Your task to perform on an android device: Open location settings Image 0: 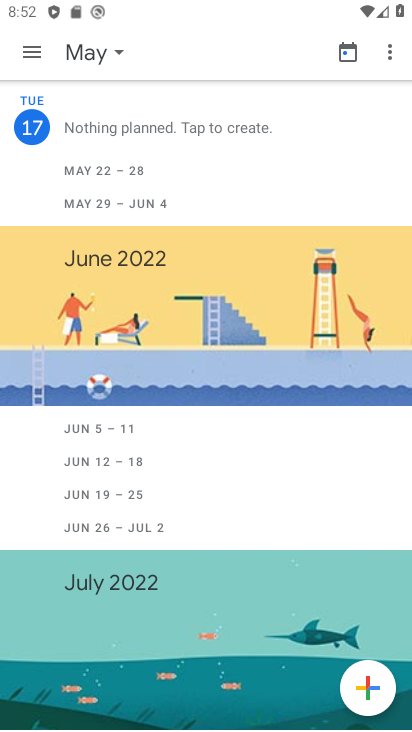
Step 0: press home button
Your task to perform on an android device: Open location settings Image 1: 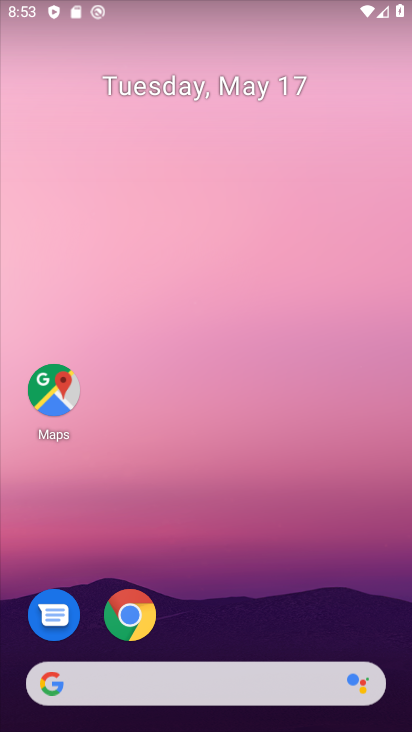
Step 1: drag from (209, 645) to (323, 96)
Your task to perform on an android device: Open location settings Image 2: 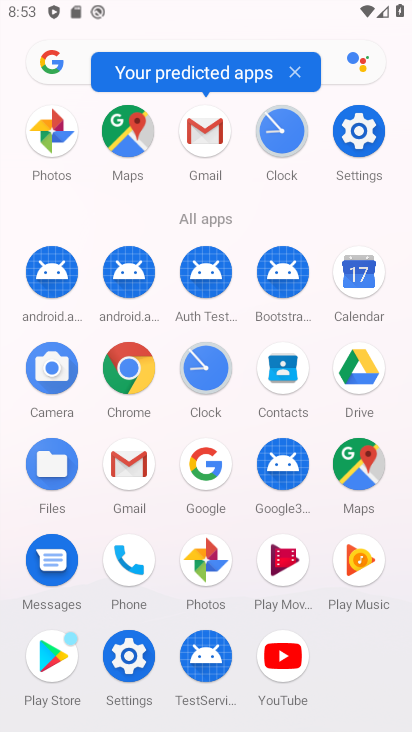
Step 2: click (132, 665)
Your task to perform on an android device: Open location settings Image 3: 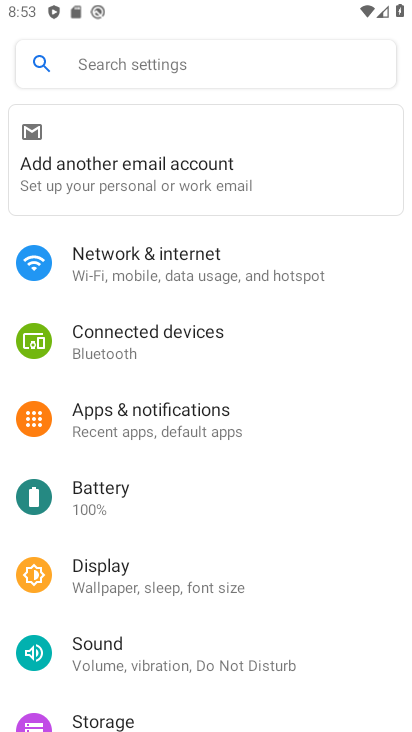
Step 3: drag from (184, 664) to (277, 267)
Your task to perform on an android device: Open location settings Image 4: 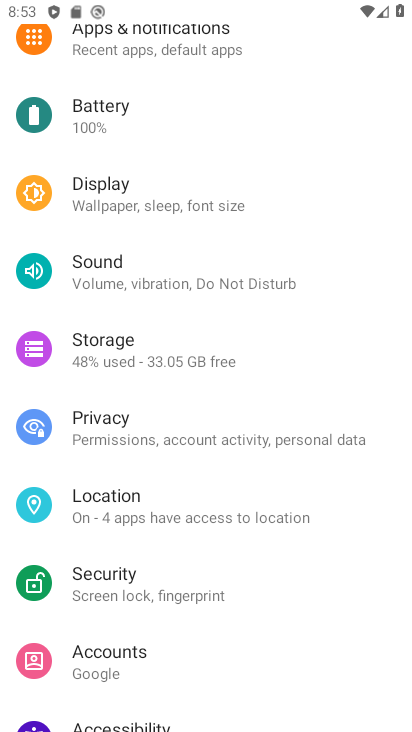
Step 4: click (138, 513)
Your task to perform on an android device: Open location settings Image 5: 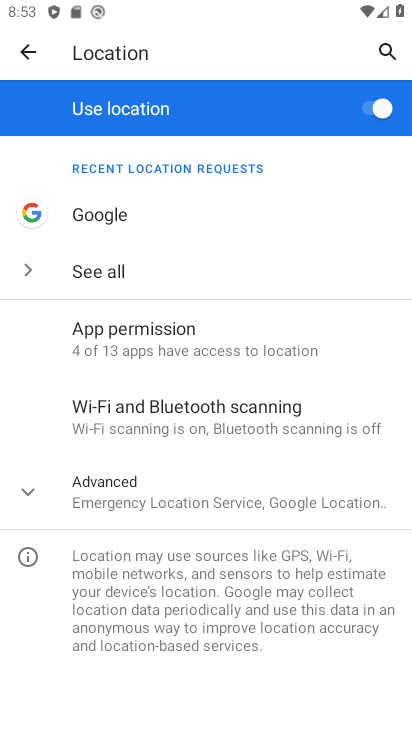
Step 5: task complete